Your task to perform on an android device: Go to wifi settings Image 0: 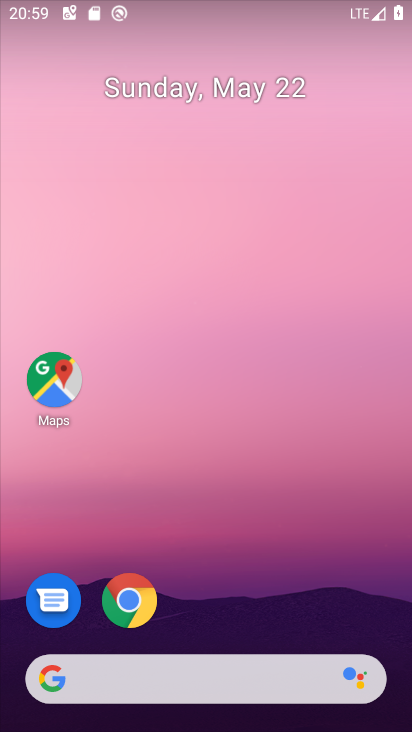
Step 0: drag from (238, 656) to (273, 387)
Your task to perform on an android device: Go to wifi settings Image 1: 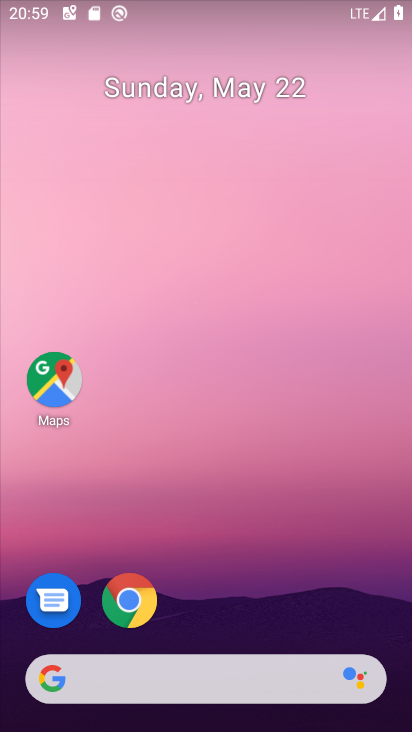
Step 1: drag from (243, 661) to (253, 367)
Your task to perform on an android device: Go to wifi settings Image 2: 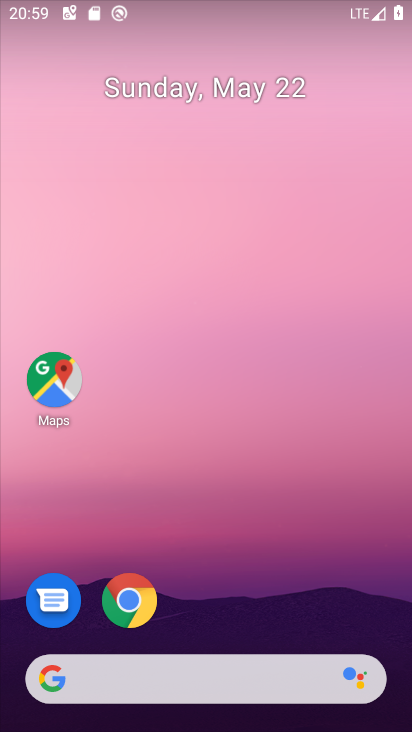
Step 2: drag from (215, 661) to (221, 237)
Your task to perform on an android device: Go to wifi settings Image 3: 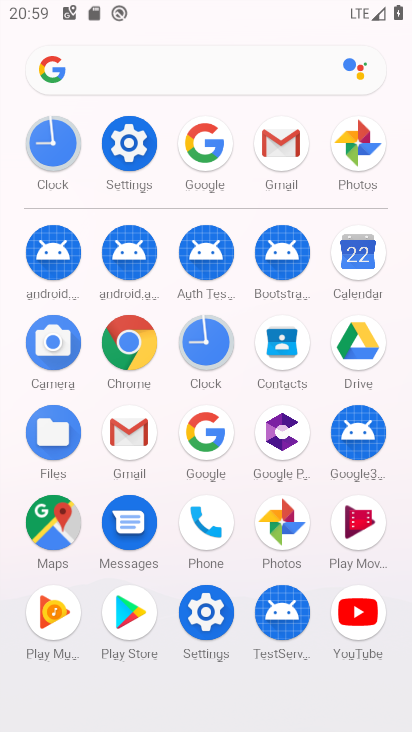
Step 3: click (120, 155)
Your task to perform on an android device: Go to wifi settings Image 4: 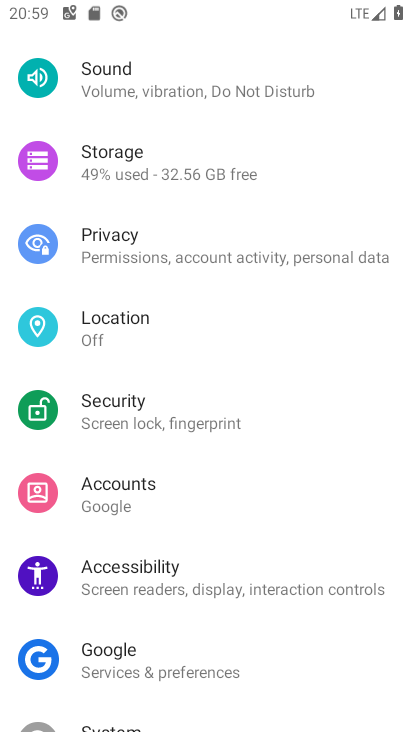
Step 4: drag from (156, 145) to (198, 540)
Your task to perform on an android device: Go to wifi settings Image 5: 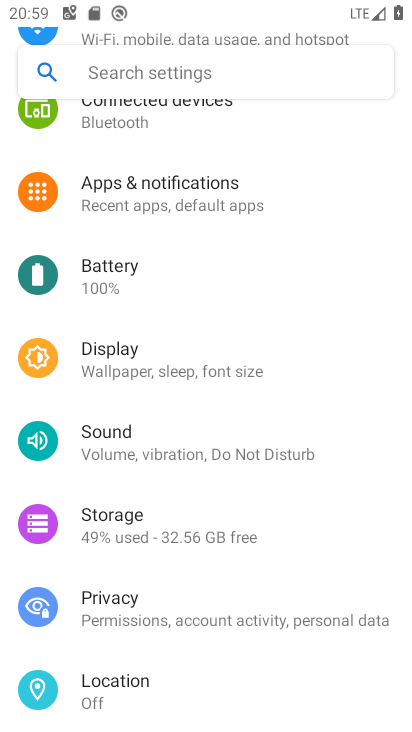
Step 5: drag from (165, 157) to (186, 600)
Your task to perform on an android device: Go to wifi settings Image 6: 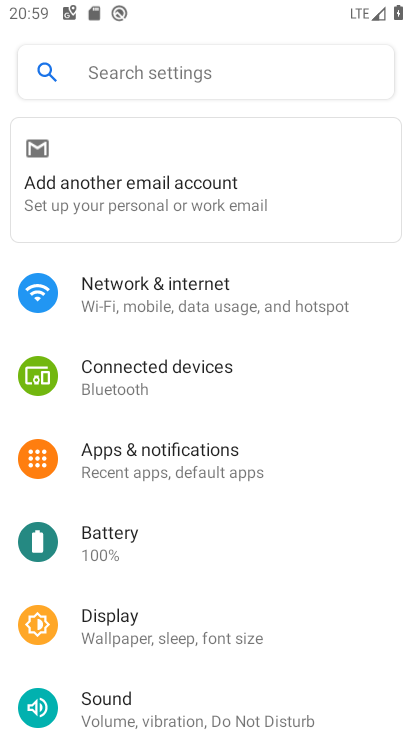
Step 6: click (132, 305)
Your task to perform on an android device: Go to wifi settings Image 7: 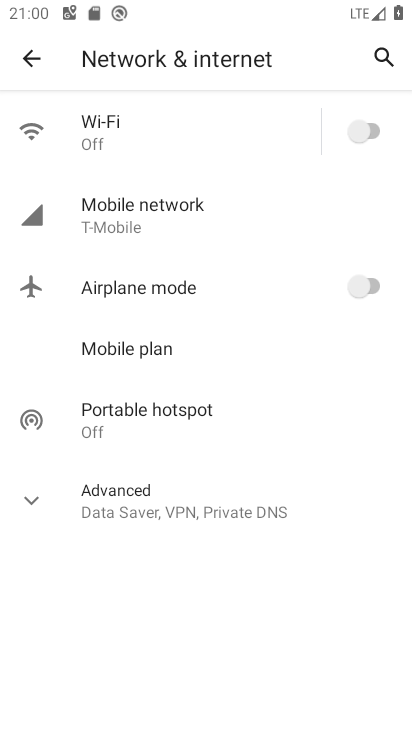
Step 7: click (139, 499)
Your task to perform on an android device: Go to wifi settings Image 8: 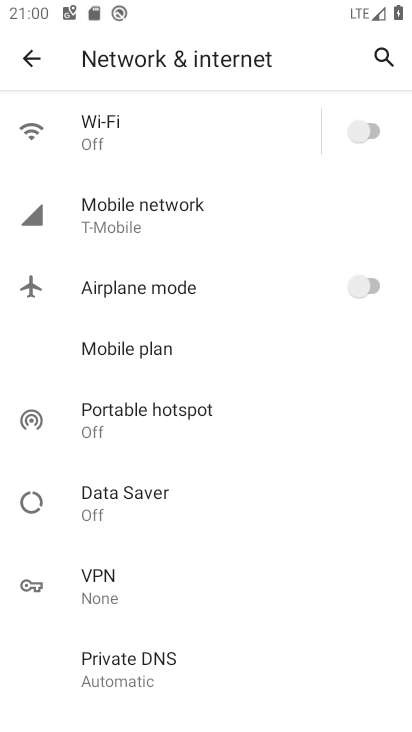
Step 8: click (156, 129)
Your task to perform on an android device: Go to wifi settings Image 9: 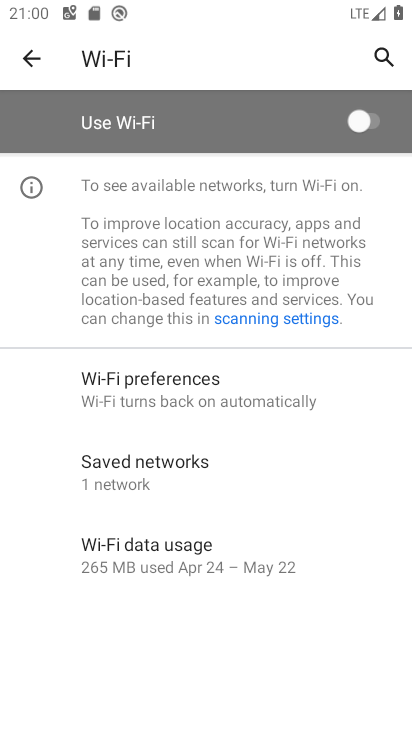
Step 9: click (362, 125)
Your task to perform on an android device: Go to wifi settings Image 10: 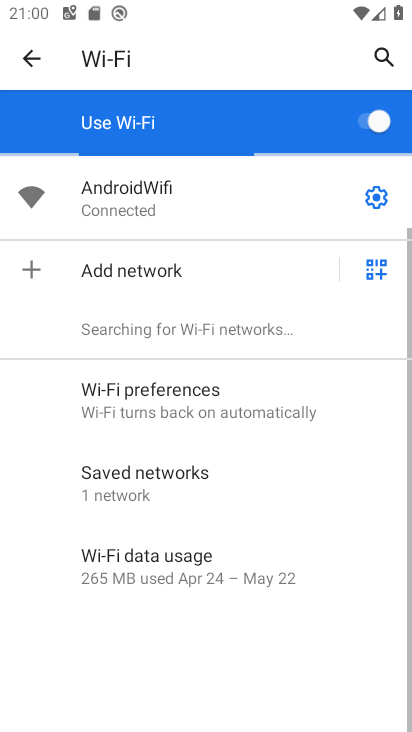
Step 10: click (371, 201)
Your task to perform on an android device: Go to wifi settings Image 11: 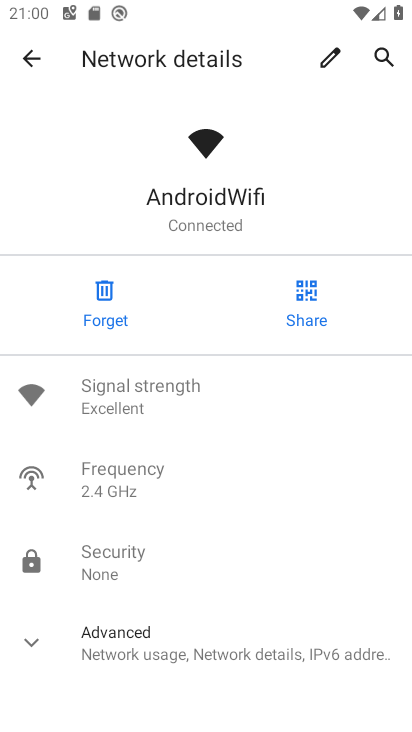
Step 11: click (183, 655)
Your task to perform on an android device: Go to wifi settings Image 12: 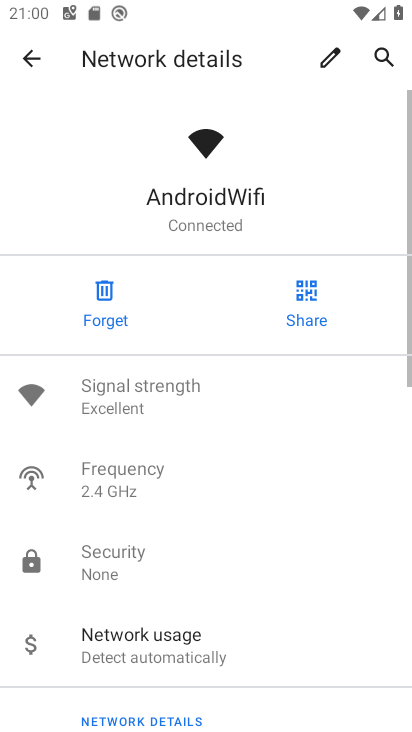
Step 12: task complete